Your task to perform on an android device: turn on data saver in the chrome app Image 0: 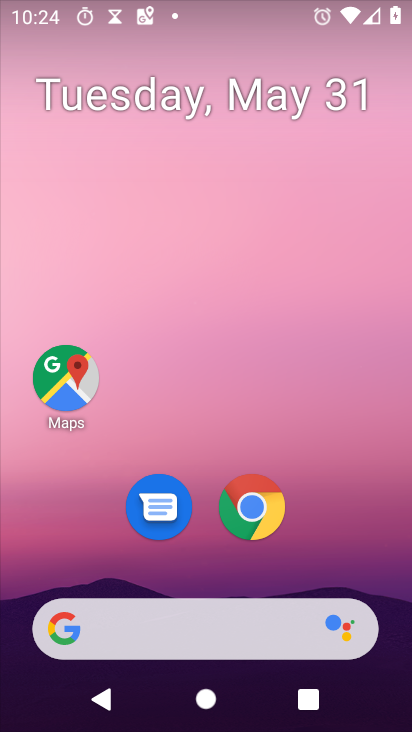
Step 0: click (259, 498)
Your task to perform on an android device: turn on data saver in the chrome app Image 1: 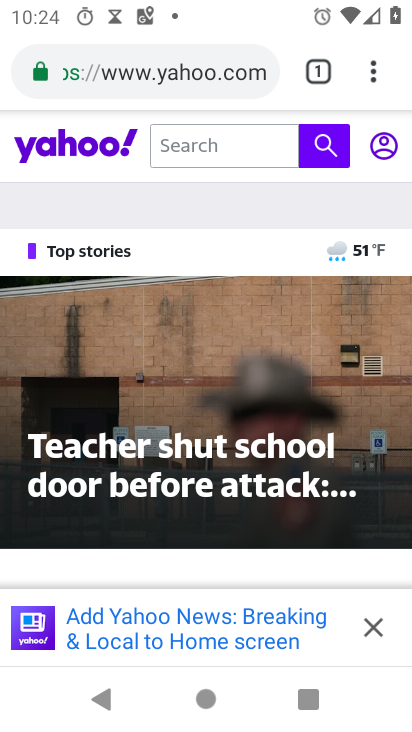
Step 1: click (366, 75)
Your task to perform on an android device: turn on data saver in the chrome app Image 2: 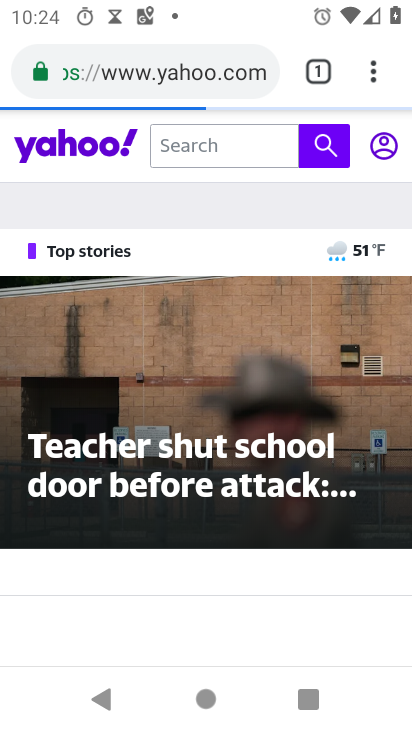
Step 2: click (386, 78)
Your task to perform on an android device: turn on data saver in the chrome app Image 3: 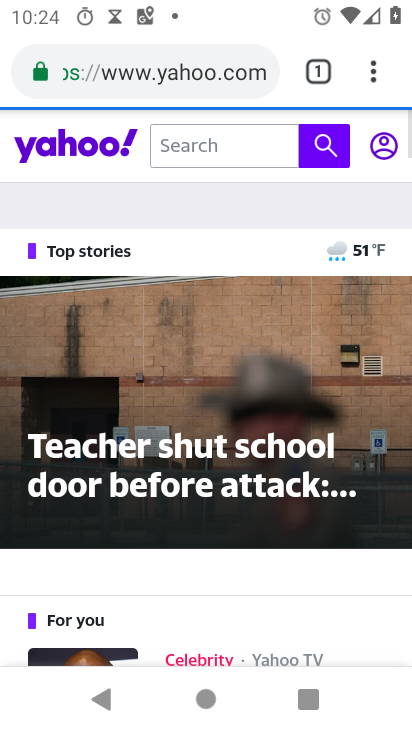
Step 3: click (384, 60)
Your task to perform on an android device: turn on data saver in the chrome app Image 4: 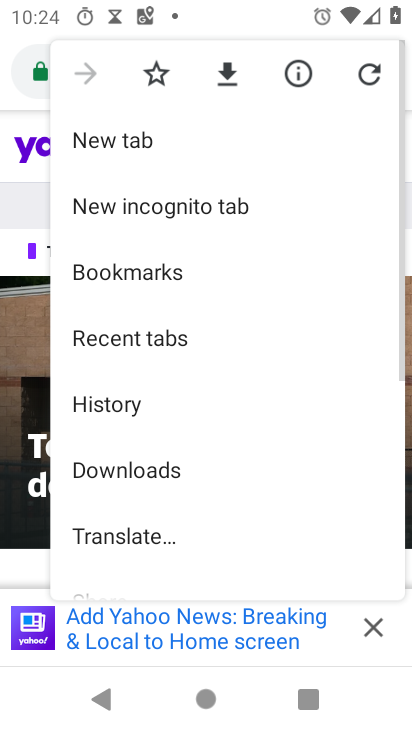
Step 4: drag from (158, 537) to (296, 223)
Your task to perform on an android device: turn on data saver in the chrome app Image 5: 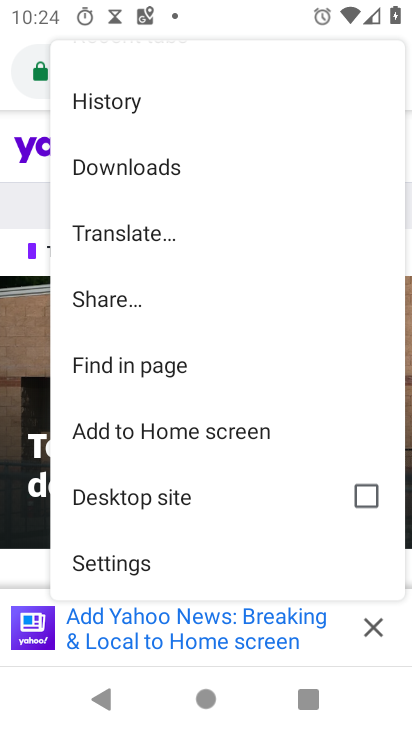
Step 5: click (136, 558)
Your task to perform on an android device: turn on data saver in the chrome app Image 6: 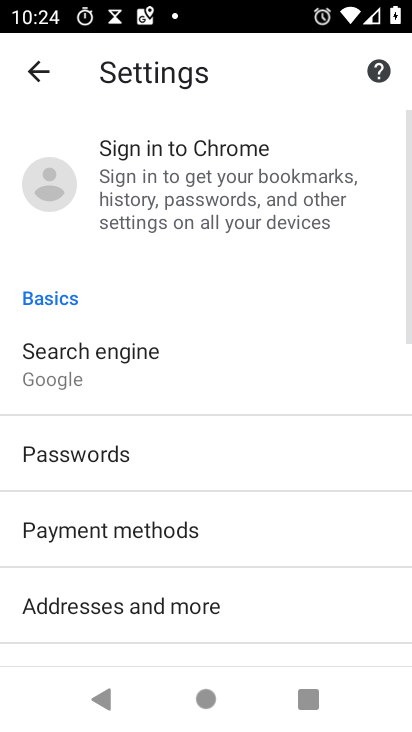
Step 6: drag from (18, 517) to (180, 274)
Your task to perform on an android device: turn on data saver in the chrome app Image 7: 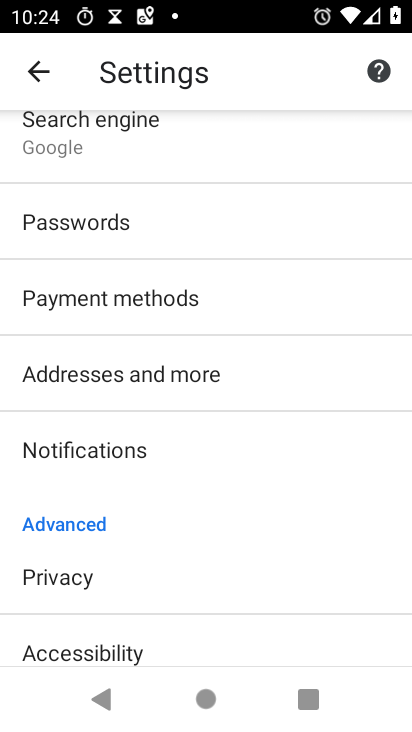
Step 7: drag from (10, 589) to (301, 293)
Your task to perform on an android device: turn on data saver in the chrome app Image 8: 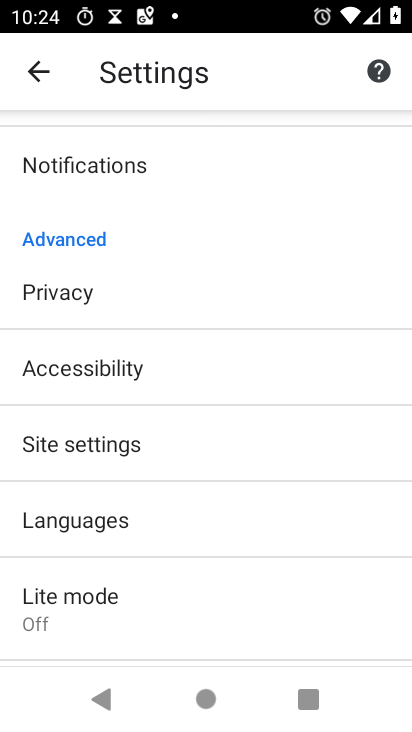
Step 8: click (64, 606)
Your task to perform on an android device: turn on data saver in the chrome app Image 9: 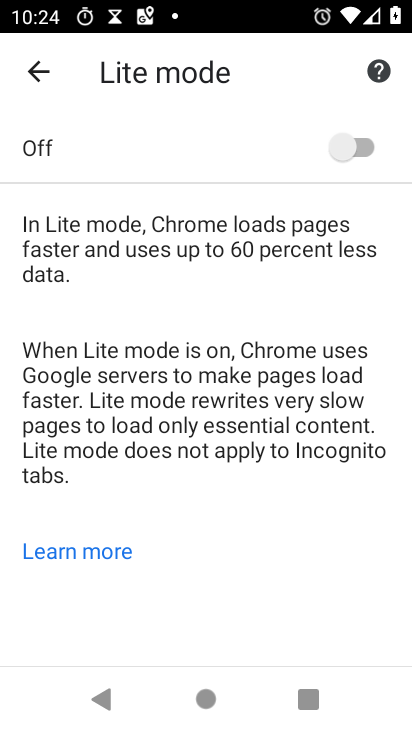
Step 9: click (350, 142)
Your task to perform on an android device: turn on data saver in the chrome app Image 10: 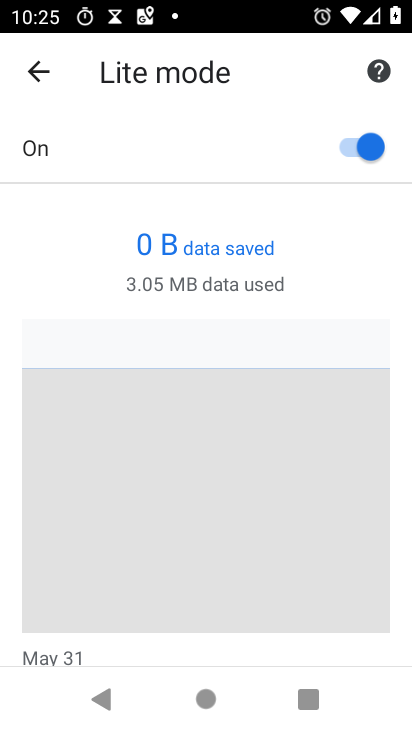
Step 10: task complete